Your task to perform on an android device: When is my next meeting? Image 0: 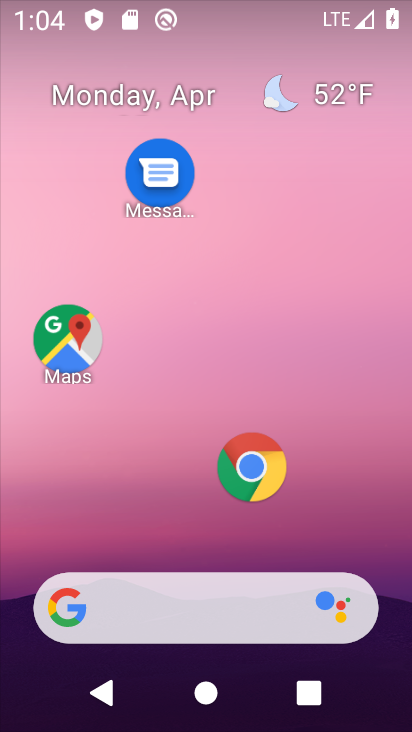
Step 0: drag from (207, 539) to (261, 213)
Your task to perform on an android device: When is my next meeting? Image 1: 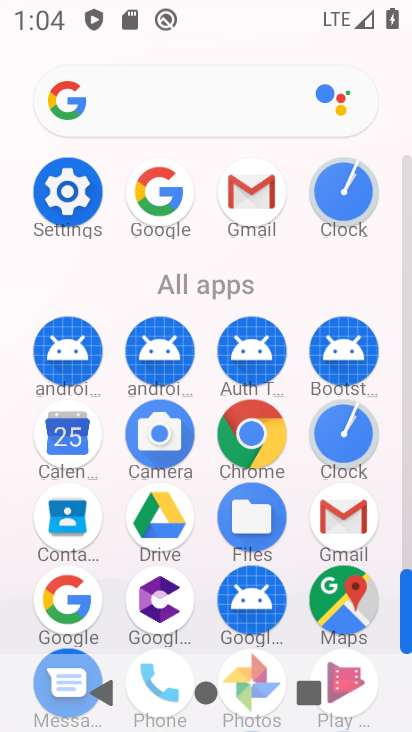
Step 1: click (51, 442)
Your task to perform on an android device: When is my next meeting? Image 2: 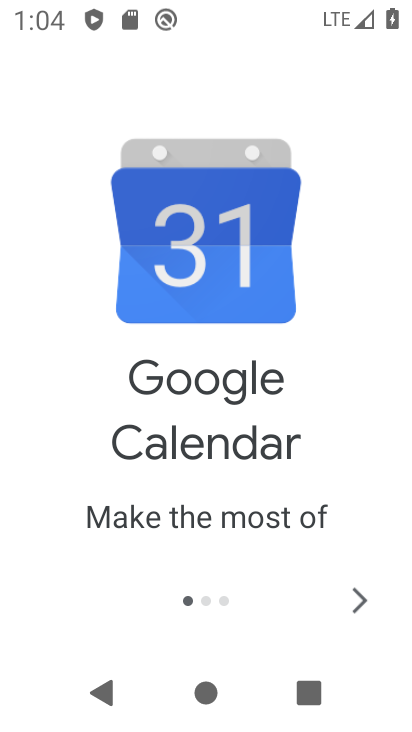
Step 2: click (349, 585)
Your task to perform on an android device: When is my next meeting? Image 3: 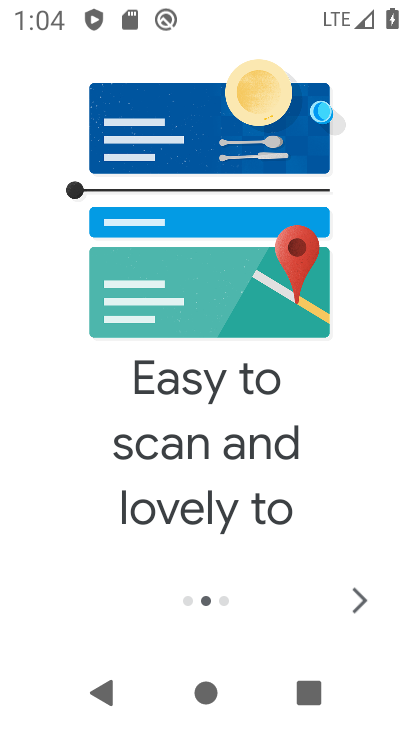
Step 3: click (351, 585)
Your task to perform on an android device: When is my next meeting? Image 4: 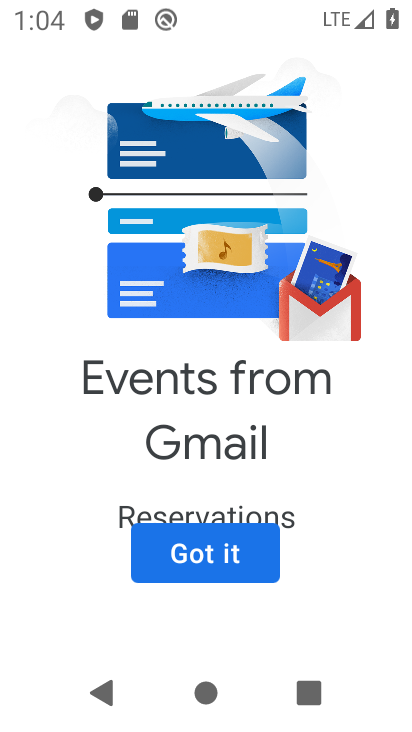
Step 4: click (224, 543)
Your task to perform on an android device: When is my next meeting? Image 5: 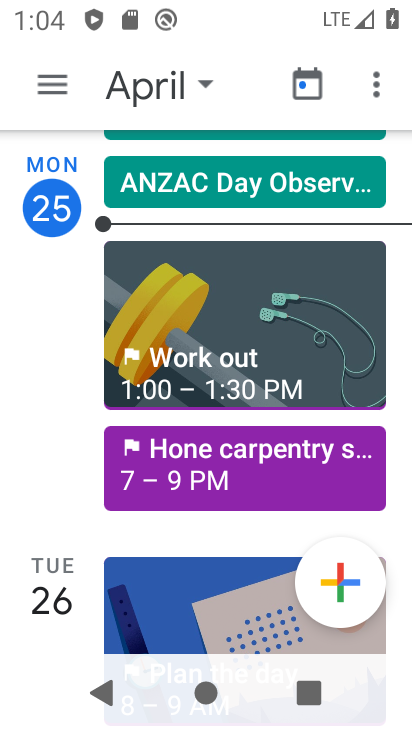
Step 5: click (194, 91)
Your task to perform on an android device: When is my next meeting? Image 6: 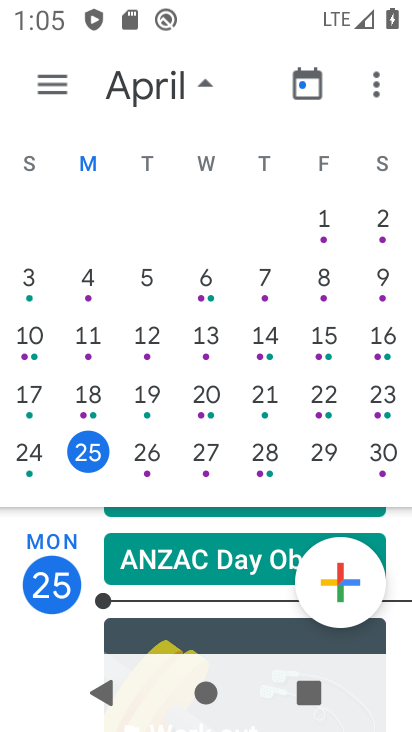
Step 6: click (149, 456)
Your task to perform on an android device: When is my next meeting? Image 7: 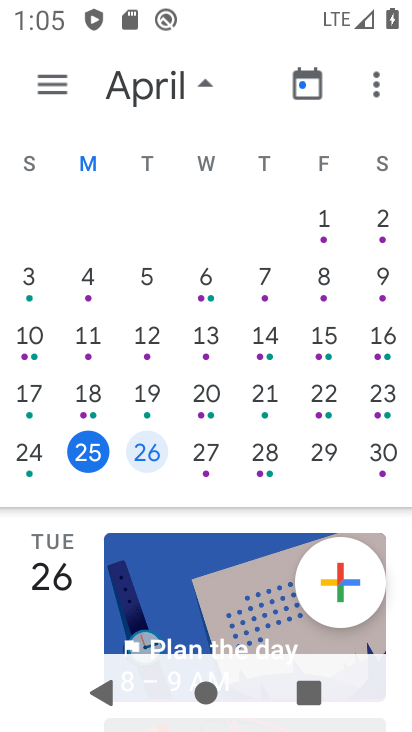
Step 7: click (199, 442)
Your task to perform on an android device: When is my next meeting? Image 8: 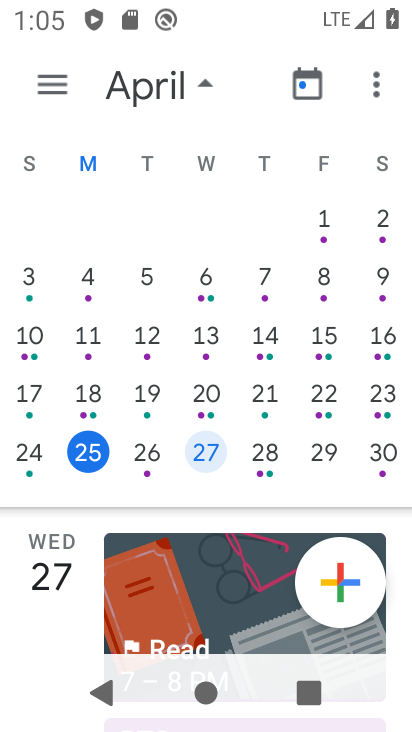
Step 8: drag from (238, 509) to (274, 295)
Your task to perform on an android device: When is my next meeting? Image 9: 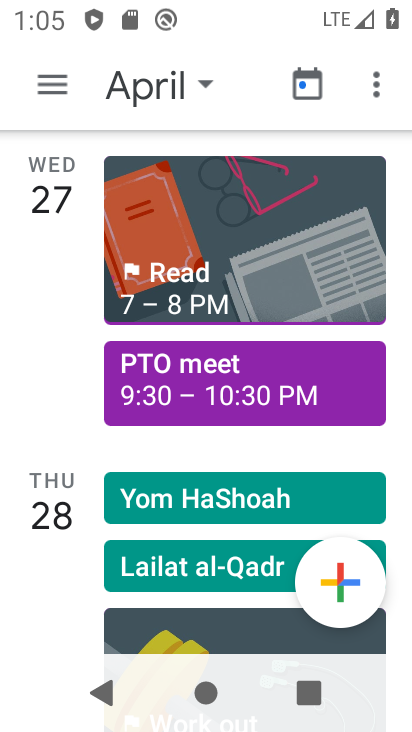
Step 9: click (203, 540)
Your task to perform on an android device: When is my next meeting? Image 10: 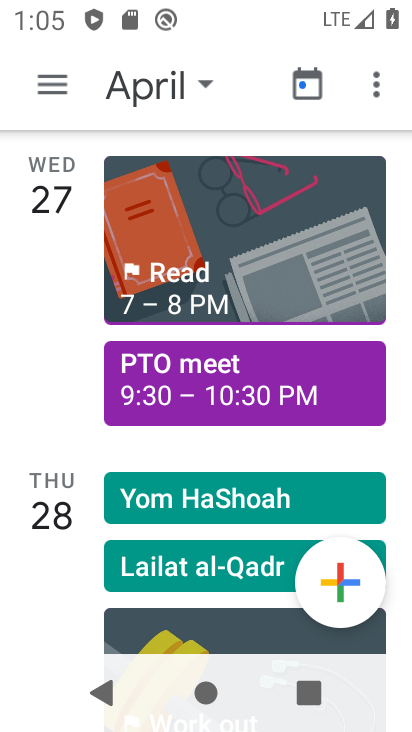
Step 10: task complete